Your task to perform on an android device: Open settings Image 0: 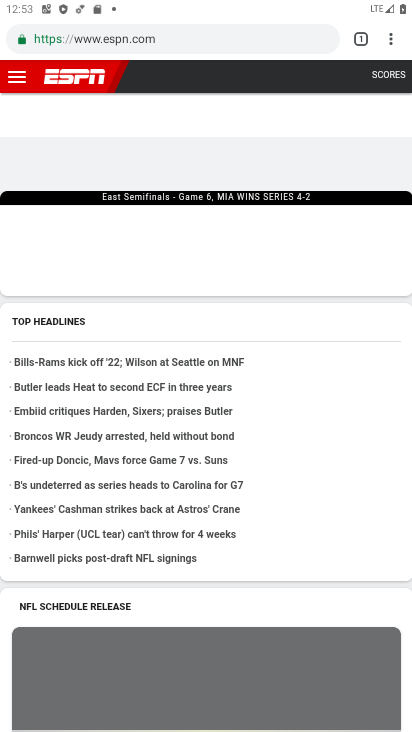
Step 0: press home button
Your task to perform on an android device: Open settings Image 1: 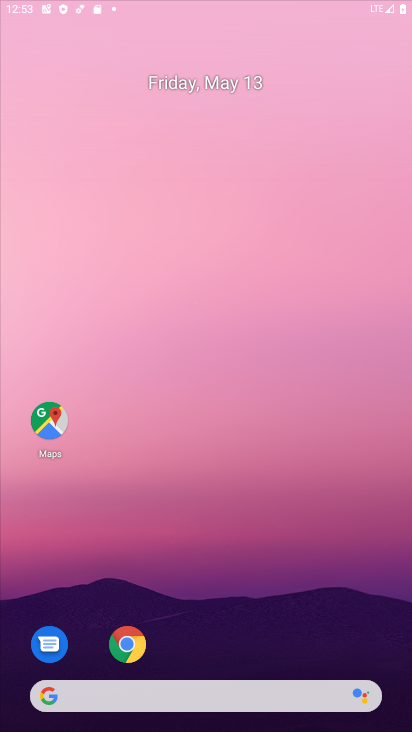
Step 1: drag from (395, 601) to (307, 54)
Your task to perform on an android device: Open settings Image 2: 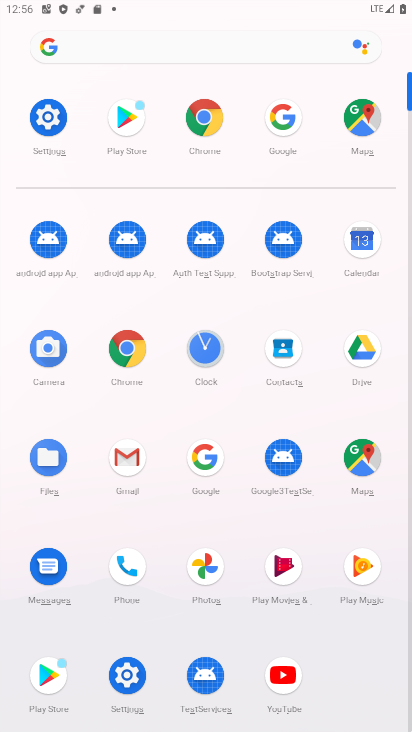
Step 2: click (129, 660)
Your task to perform on an android device: Open settings Image 3: 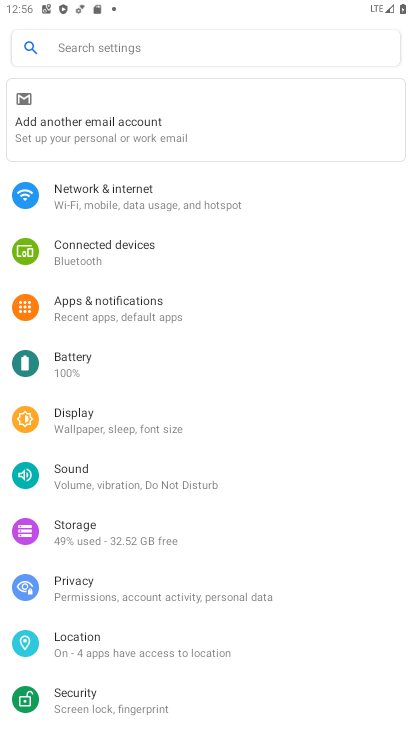
Step 3: task complete